Your task to perform on an android device: When is my next meeting? Image 0: 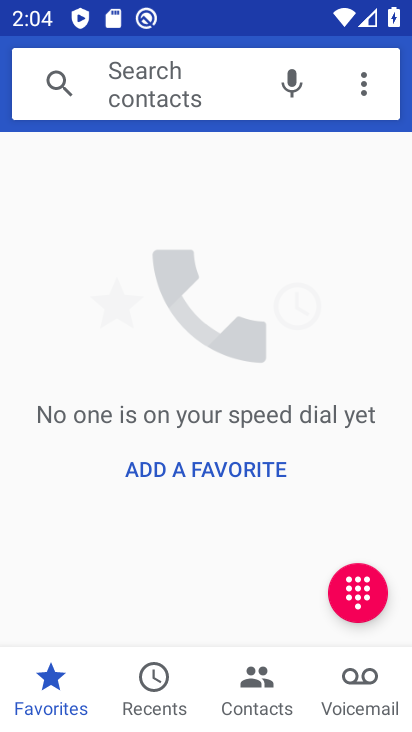
Step 0: press back button
Your task to perform on an android device: When is my next meeting? Image 1: 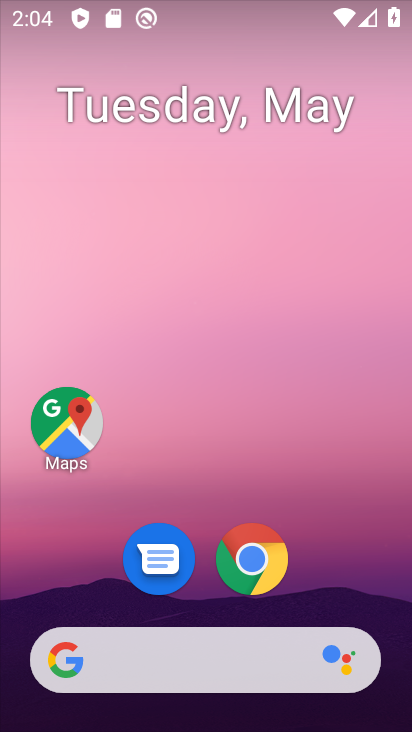
Step 1: drag from (350, 574) to (228, 77)
Your task to perform on an android device: When is my next meeting? Image 2: 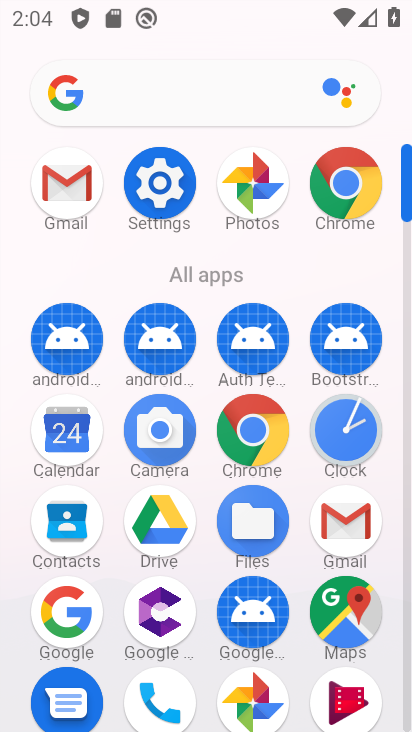
Step 2: click (67, 431)
Your task to perform on an android device: When is my next meeting? Image 3: 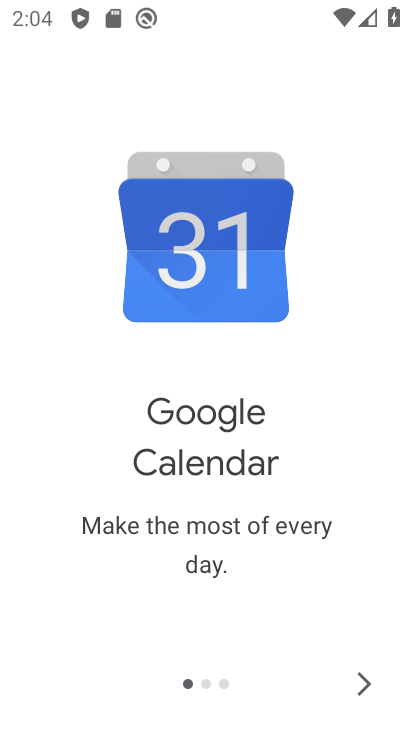
Step 3: click (369, 682)
Your task to perform on an android device: When is my next meeting? Image 4: 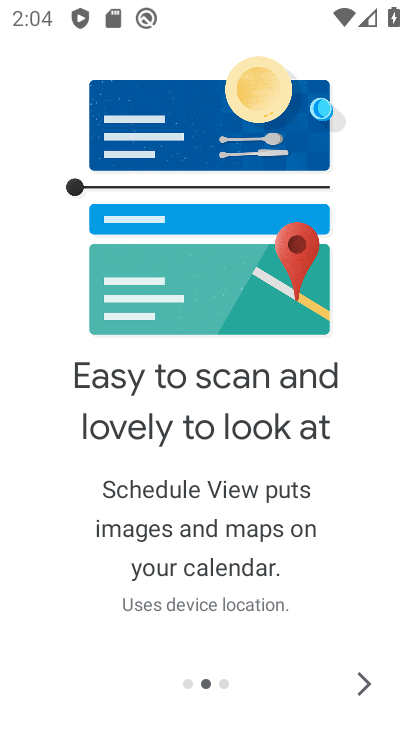
Step 4: click (369, 682)
Your task to perform on an android device: When is my next meeting? Image 5: 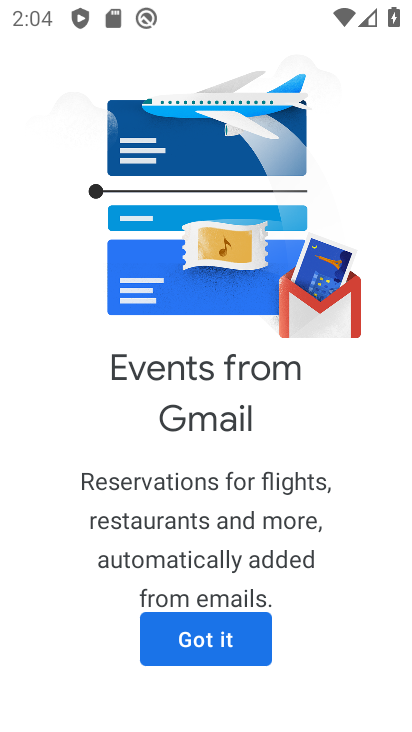
Step 5: click (212, 637)
Your task to perform on an android device: When is my next meeting? Image 6: 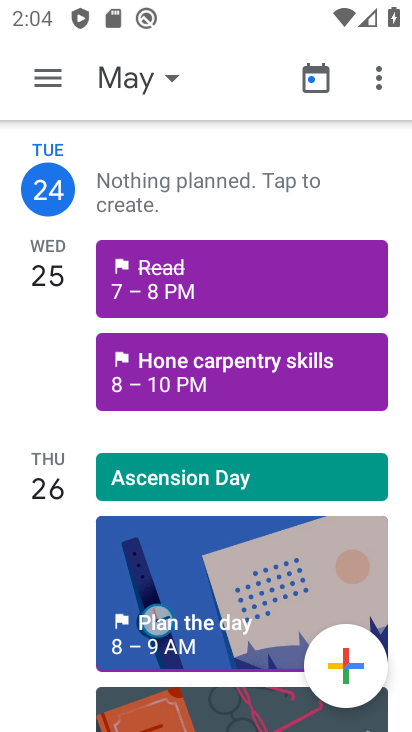
Step 6: click (169, 77)
Your task to perform on an android device: When is my next meeting? Image 7: 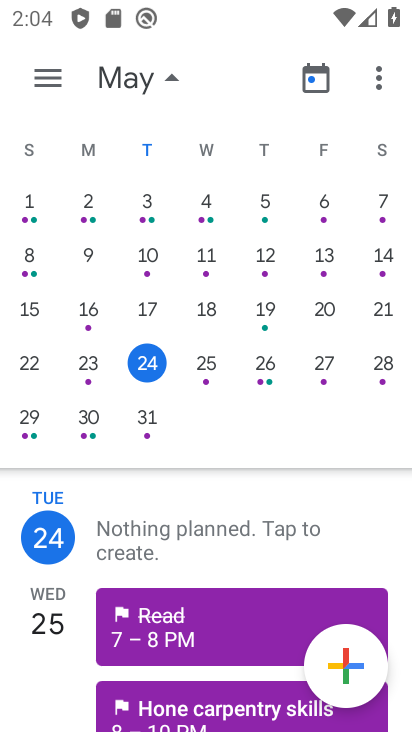
Step 7: click (208, 357)
Your task to perform on an android device: When is my next meeting? Image 8: 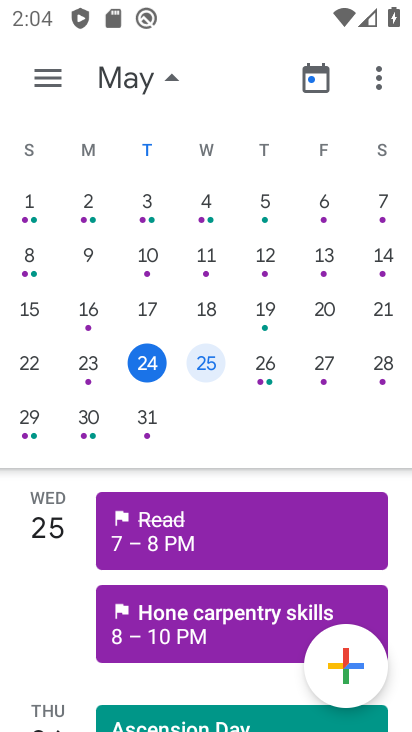
Step 8: click (37, 88)
Your task to perform on an android device: When is my next meeting? Image 9: 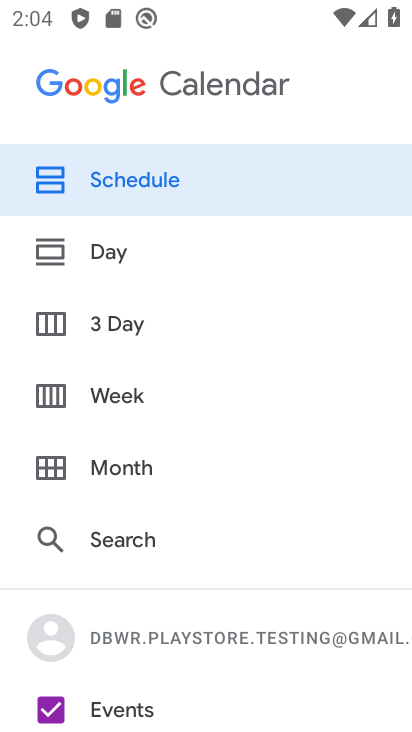
Step 9: click (105, 168)
Your task to perform on an android device: When is my next meeting? Image 10: 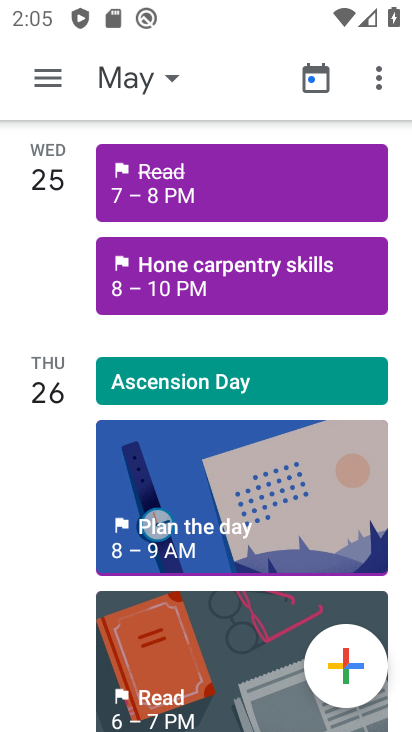
Step 10: task complete